Your task to perform on an android device: What is the news today? Image 0: 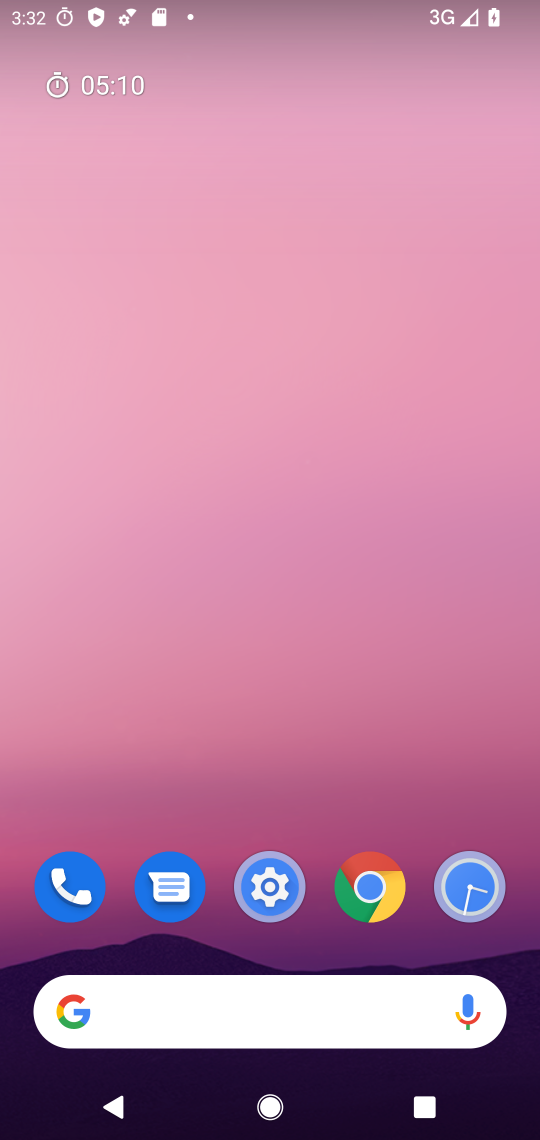
Step 0: press home button
Your task to perform on an android device: What is the news today? Image 1: 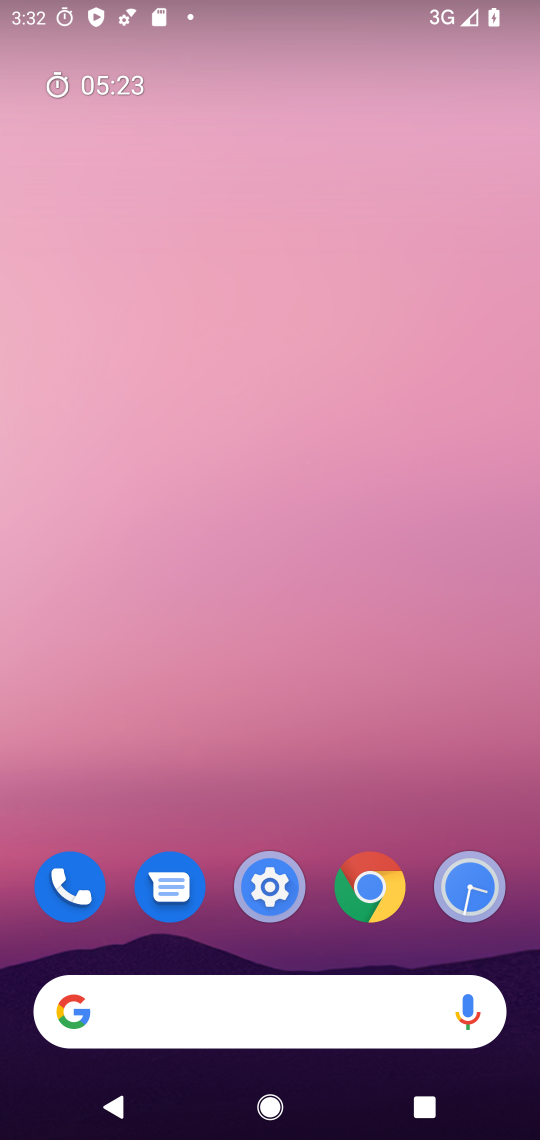
Step 1: drag from (525, 460) to (503, 593)
Your task to perform on an android device: What is the news today? Image 2: 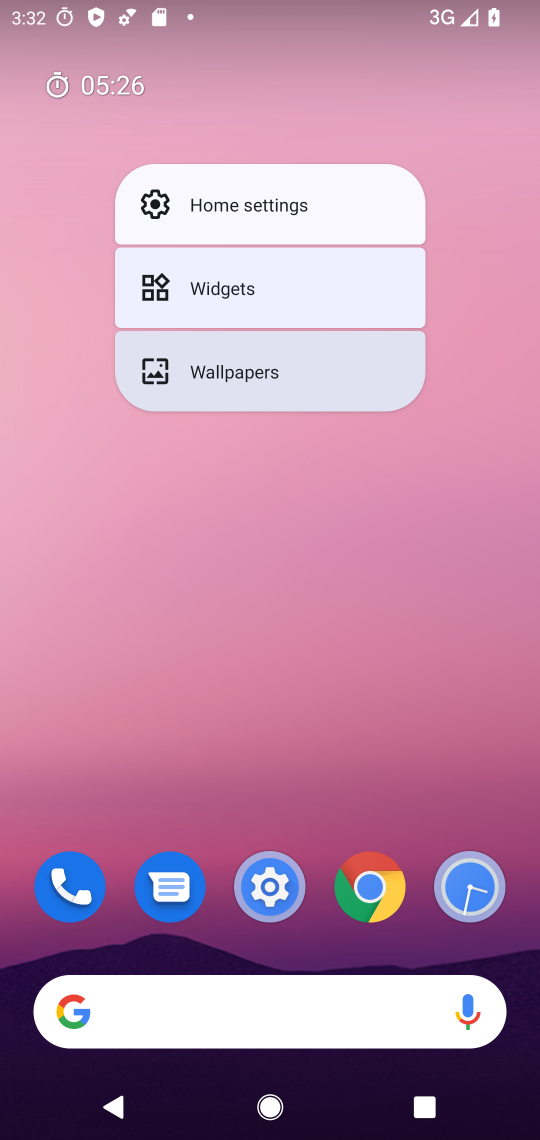
Step 2: click (363, 661)
Your task to perform on an android device: What is the news today? Image 3: 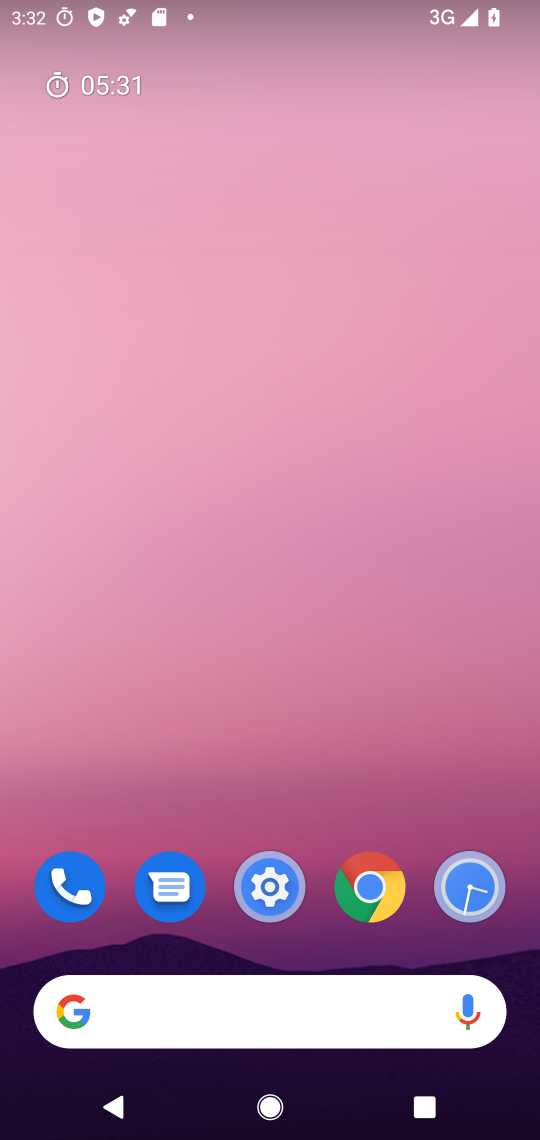
Step 3: task complete